Your task to perform on an android device: Open calendar and show me the third week of next month Image 0: 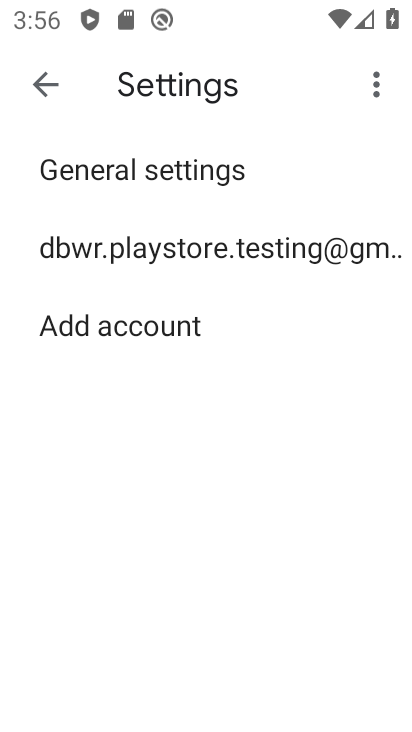
Step 0: press home button
Your task to perform on an android device: Open calendar and show me the third week of next month Image 1: 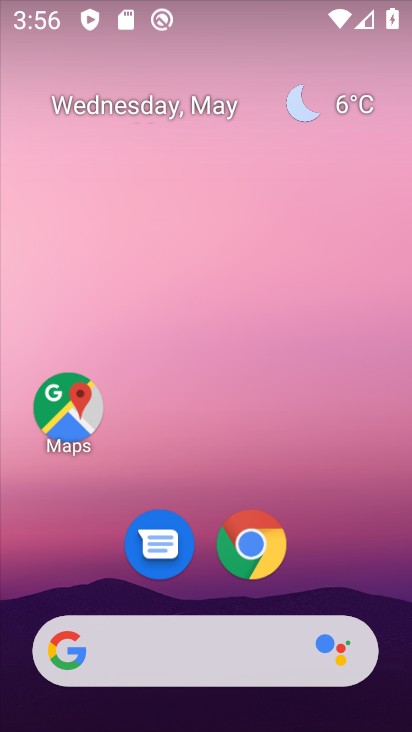
Step 1: drag from (79, 511) to (237, 170)
Your task to perform on an android device: Open calendar and show me the third week of next month Image 2: 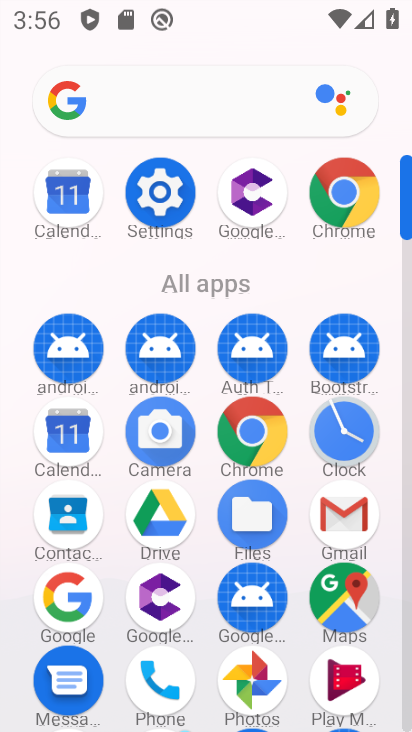
Step 2: click (77, 432)
Your task to perform on an android device: Open calendar and show me the third week of next month Image 3: 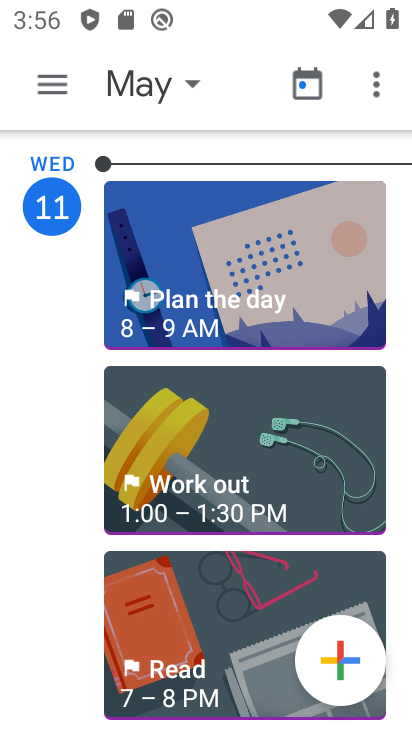
Step 3: click (129, 87)
Your task to perform on an android device: Open calendar and show me the third week of next month Image 4: 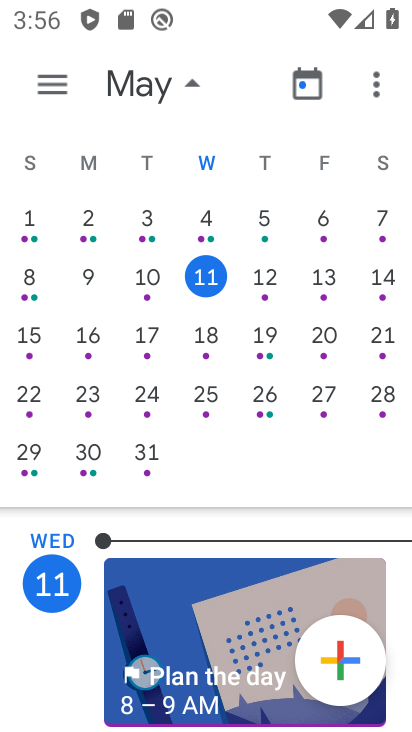
Step 4: drag from (408, 390) to (5, 365)
Your task to perform on an android device: Open calendar and show me the third week of next month Image 5: 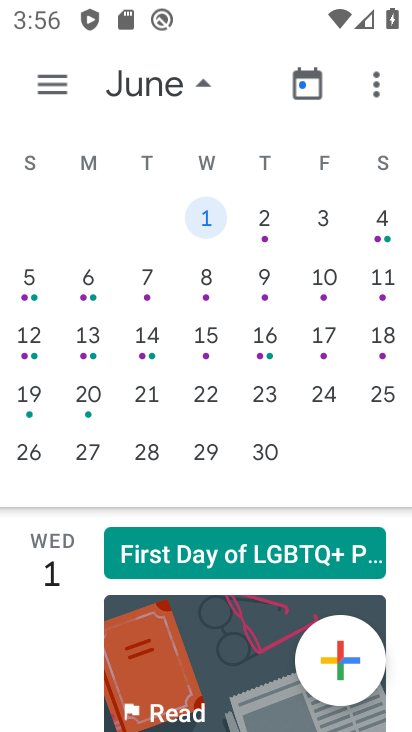
Step 5: click (219, 335)
Your task to perform on an android device: Open calendar and show me the third week of next month Image 6: 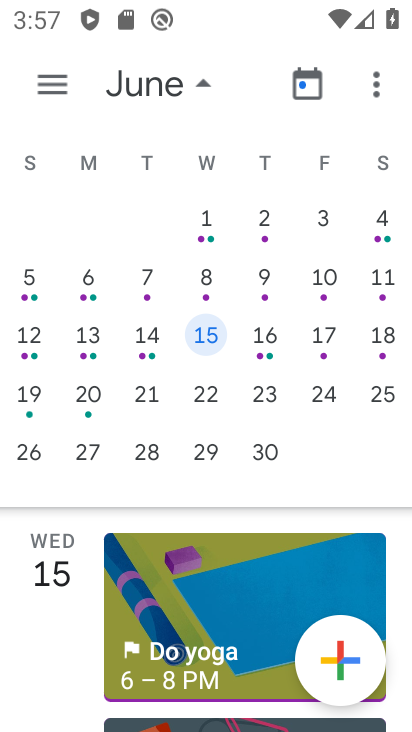
Step 6: task complete